Your task to perform on an android device: add a label to a message in the gmail app Image 0: 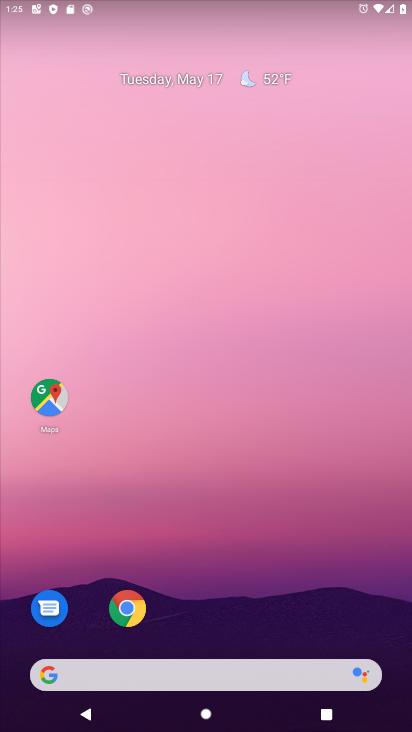
Step 0: drag from (237, 632) to (249, 68)
Your task to perform on an android device: add a label to a message in the gmail app Image 1: 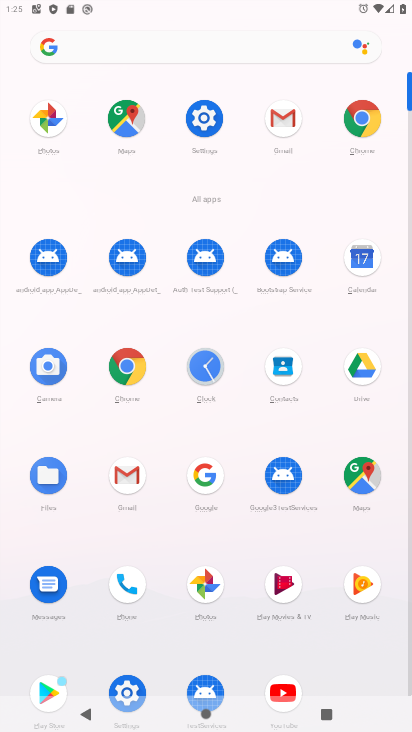
Step 1: click (274, 120)
Your task to perform on an android device: add a label to a message in the gmail app Image 2: 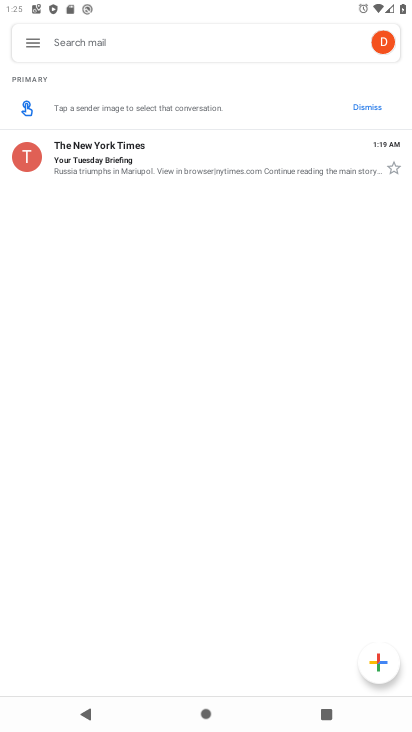
Step 2: click (25, 163)
Your task to perform on an android device: add a label to a message in the gmail app Image 3: 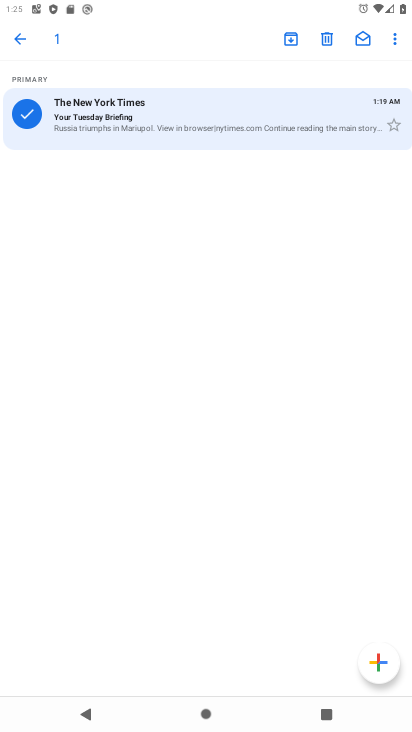
Step 3: click (396, 30)
Your task to perform on an android device: add a label to a message in the gmail app Image 4: 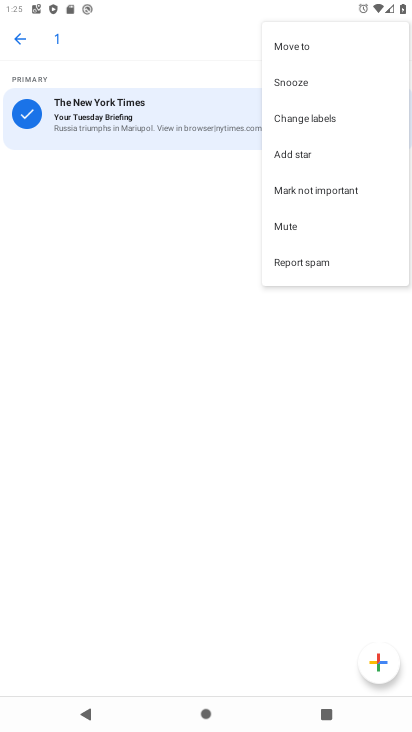
Step 4: click (286, 54)
Your task to perform on an android device: add a label to a message in the gmail app Image 5: 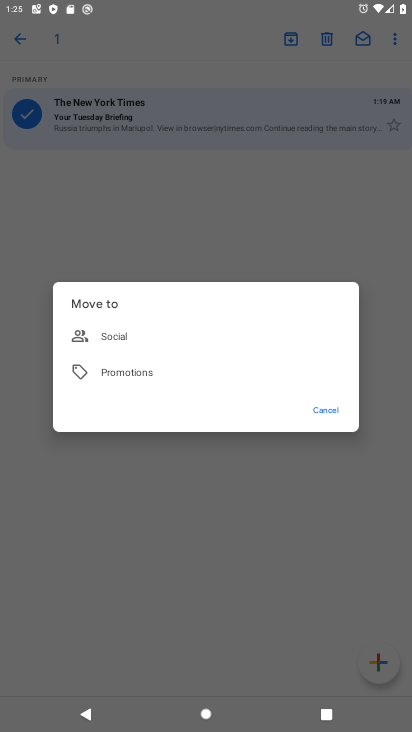
Step 5: click (172, 383)
Your task to perform on an android device: add a label to a message in the gmail app Image 6: 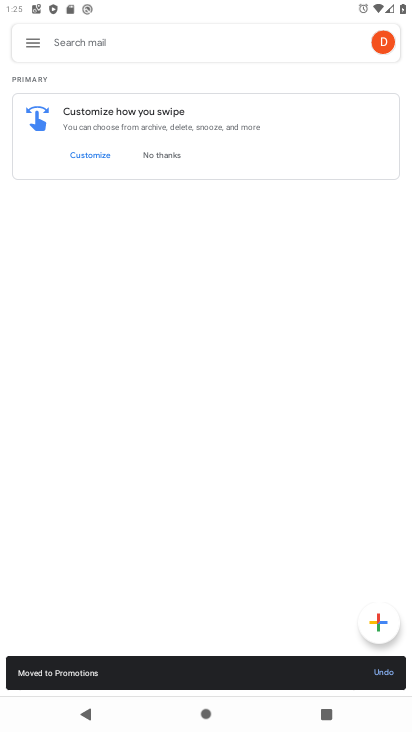
Step 6: task complete